Your task to perform on an android device: Go to battery settings Image 0: 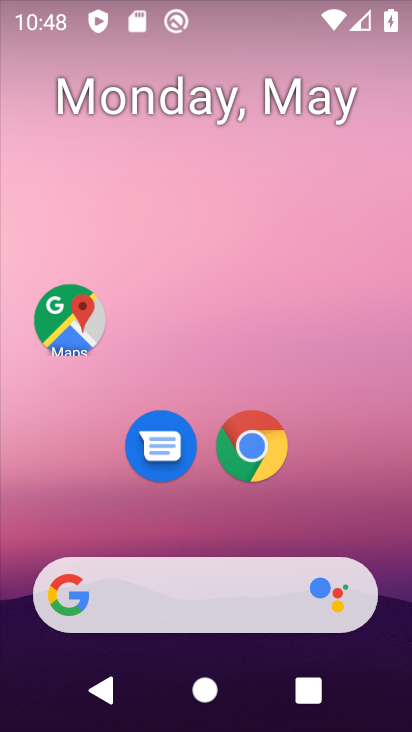
Step 0: drag from (357, 410) to (354, 0)
Your task to perform on an android device: Go to battery settings Image 1: 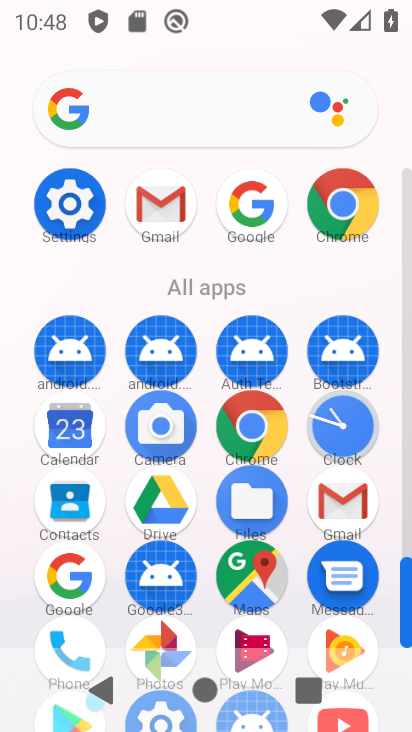
Step 1: click (60, 206)
Your task to perform on an android device: Go to battery settings Image 2: 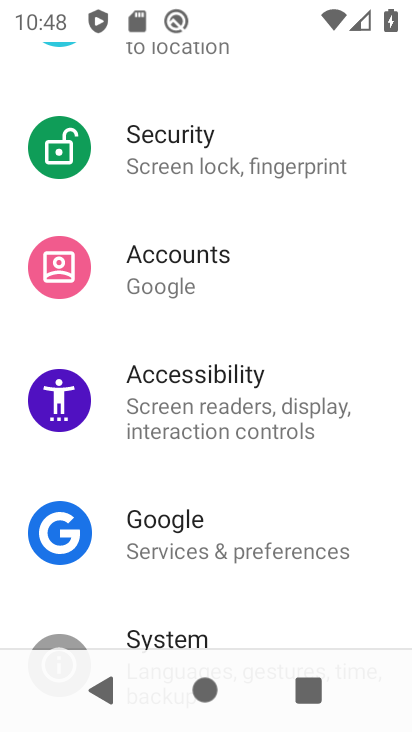
Step 2: drag from (219, 535) to (207, 156)
Your task to perform on an android device: Go to battery settings Image 3: 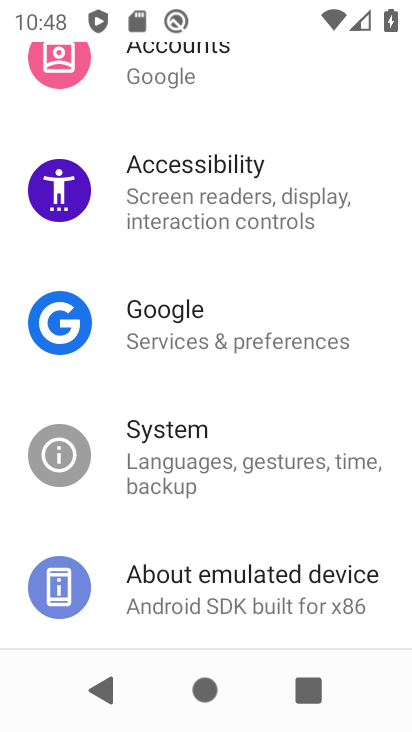
Step 3: drag from (219, 499) to (216, 174)
Your task to perform on an android device: Go to battery settings Image 4: 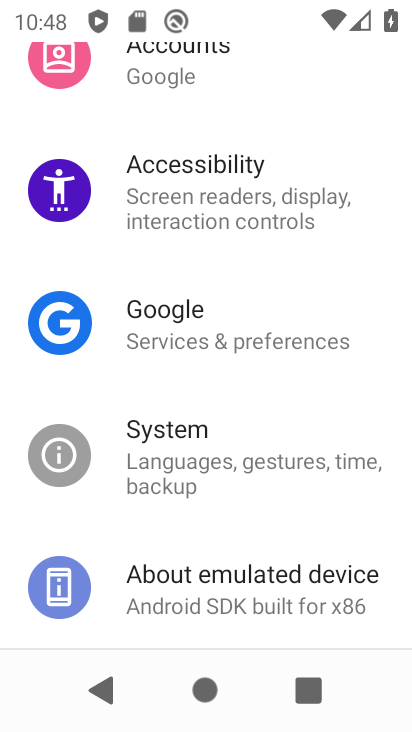
Step 4: drag from (223, 187) to (202, 519)
Your task to perform on an android device: Go to battery settings Image 5: 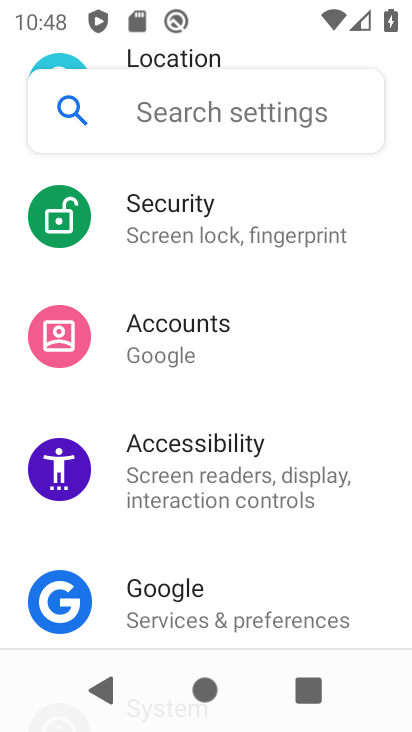
Step 5: drag from (213, 181) to (229, 607)
Your task to perform on an android device: Go to battery settings Image 6: 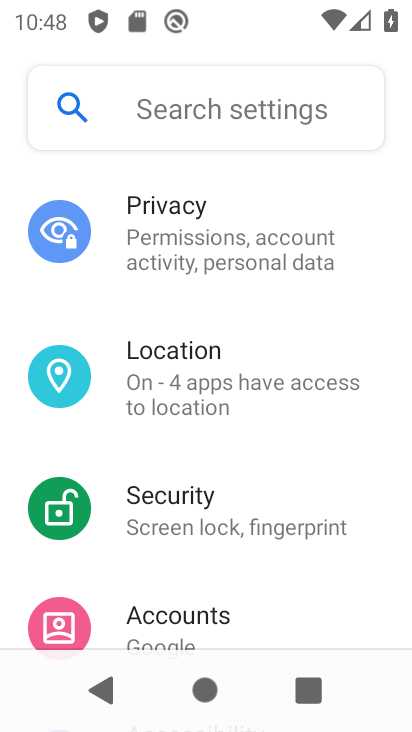
Step 6: drag from (215, 254) to (218, 579)
Your task to perform on an android device: Go to battery settings Image 7: 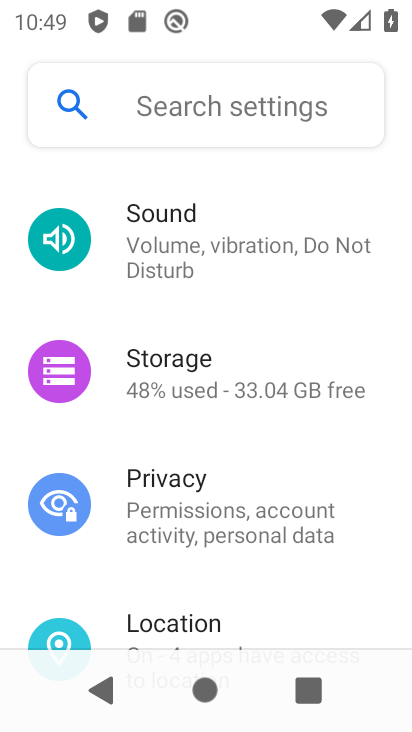
Step 7: drag from (262, 382) to (221, 587)
Your task to perform on an android device: Go to battery settings Image 8: 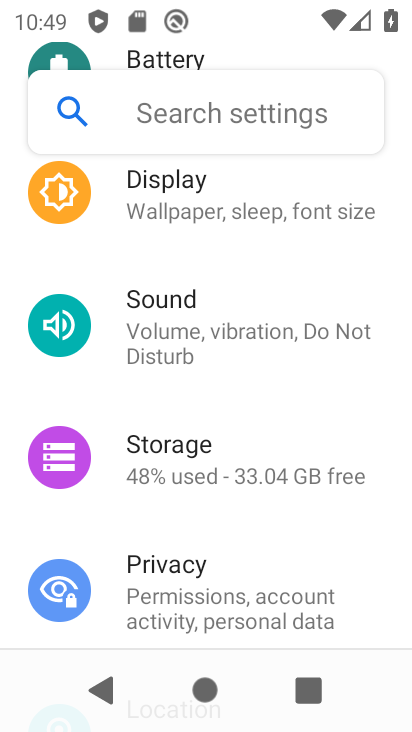
Step 8: drag from (245, 264) to (193, 516)
Your task to perform on an android device: Go to battery settings Image 9: 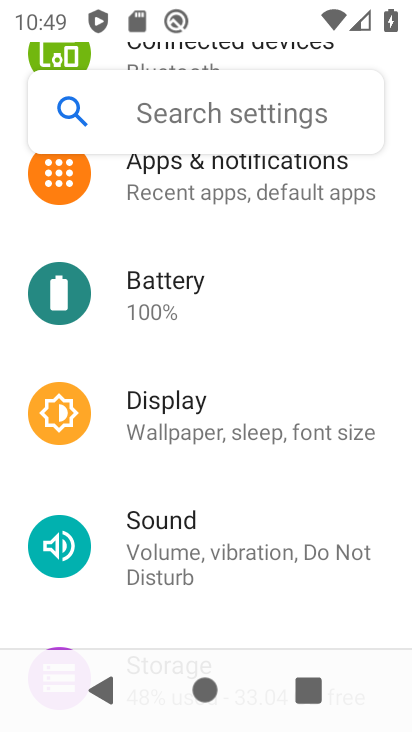
Step 9: click (158, 323)
Your task to perform on an android device: Go to battery settings Image 10: 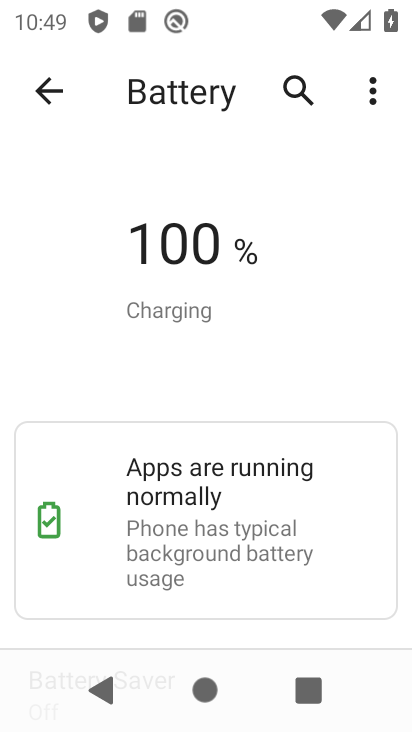
Step 10: task complete